Your task to perform on an android device: Clear the shopping cart on target. Add "sony triple a" to the cart on target, then select checkout. Image 0: 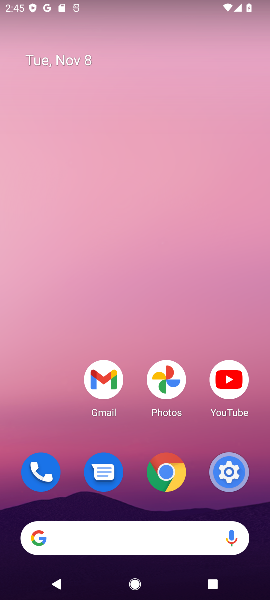
Step 0: click (122, 545)
Your task to perform on an android device: Clear the shopping cart on target. Add "sony triple a" to the cart on target, then select checkout. Image 1: 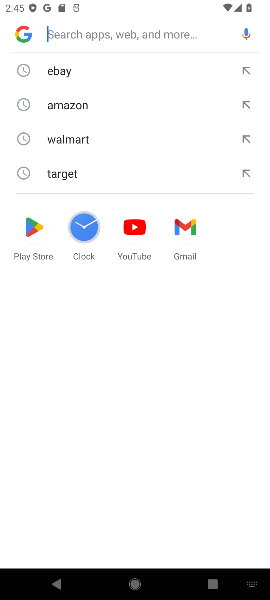
Step 1: click (56, 182)
Your task to perform on an android device: Clear the shopping cart on target. Add "sony triple a" to the cart on target, then select checkout. Image 2: 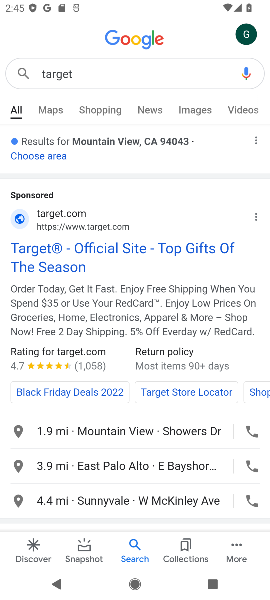
Step 2: click (43, 265)
Your task to perform on an android device: Clear the shopping cart on target. Add "sony triple a" to the cart on target, then select checkout. Image 3: 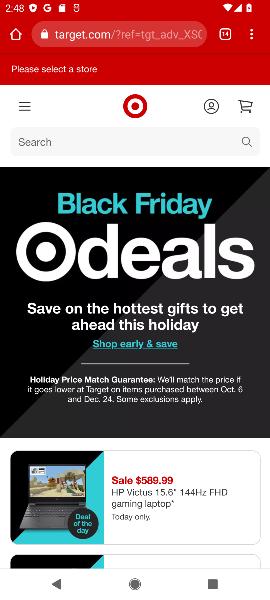
Step 3: press home button
Your task to perform on an android device: Clear the shopping cart on target. Add "sony triple a" to the cart on target, then select checkout. Image 4: 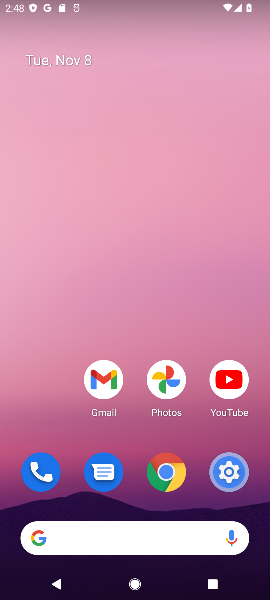
Step 4: click (112, 547)
Your task to perform on an android device: Clear the shopping cart on target. Add "sony triple a" to the cart on target, then select checkout. Image 5: 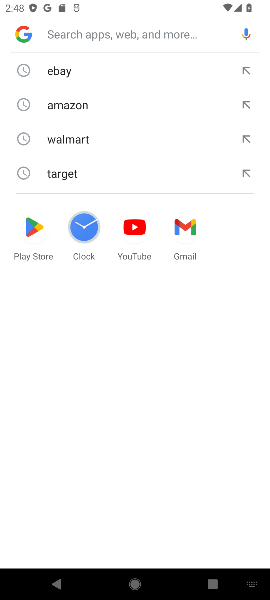
Step 5: type "target"
Your task to perform on an android device: Clear the shopping cart on target. Add "sony triple a" to the cart on target, then select checkout. Image 6: 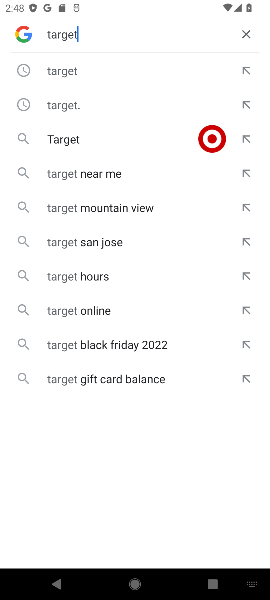
Step 6: click (118, 138)
Your task to perform on an android device: Clear the shopping cart on target. Add "sony triple a" to the cart on target, then select checkout. Image 7: 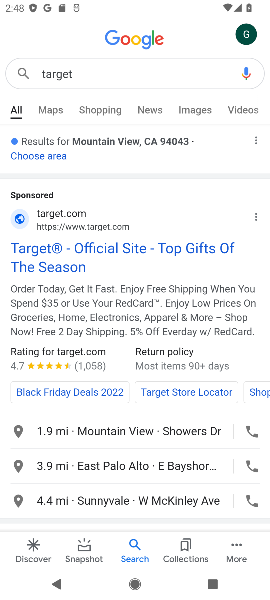
Step 7: click (115, 273)
Your task to perform on an android device: Clear the shopping cart on target. Add "sony triple a" to the cart on target, then select checkout. Image 8: 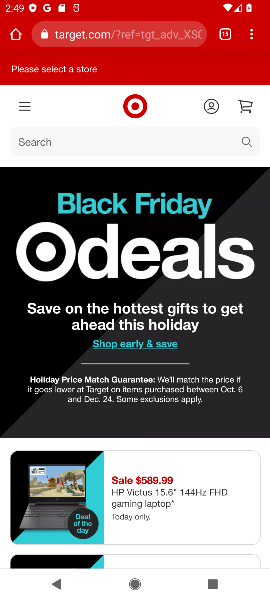
Step 8: task complete